Your task to perform on an android device: turn notification dots off Image 0: 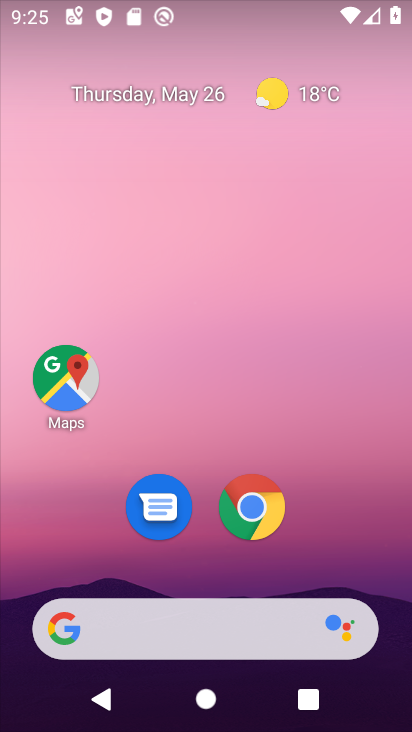
Step 0: drag from (266, 659) to (232, 195)
Your task to perform on an android device: turn notification dots off Image 1: 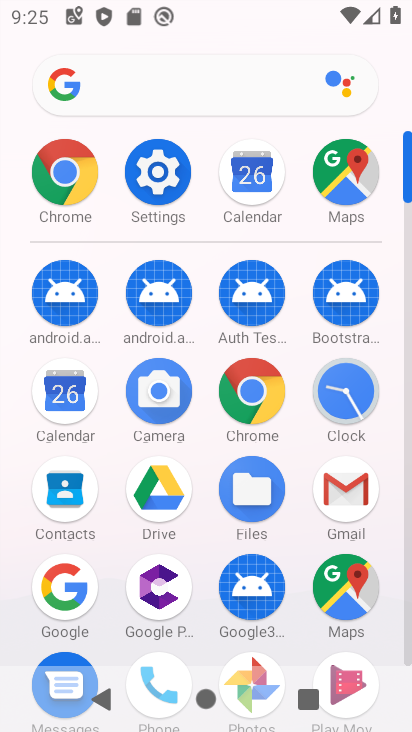
Step 1: click (146, 151)
Your task to perform on an android device: turn notification dots off Image 2: 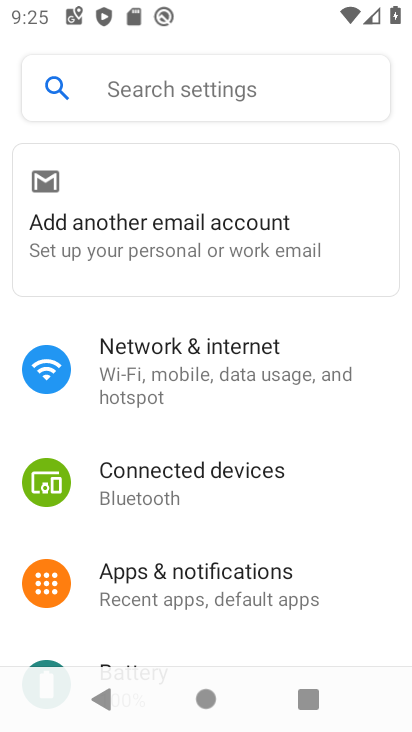
Step 2: click (164, 95)
Your task to perform on an android device: turn notification dots off Image 3: 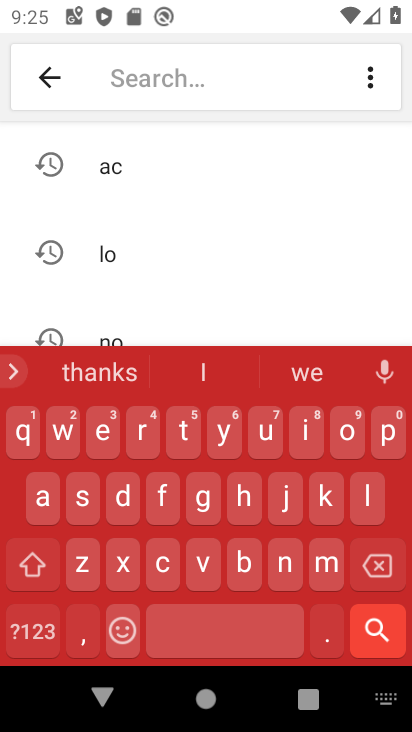
Step 3: click (121, 501)
Your task to perform on an android device: turn notification dots off Image 4: 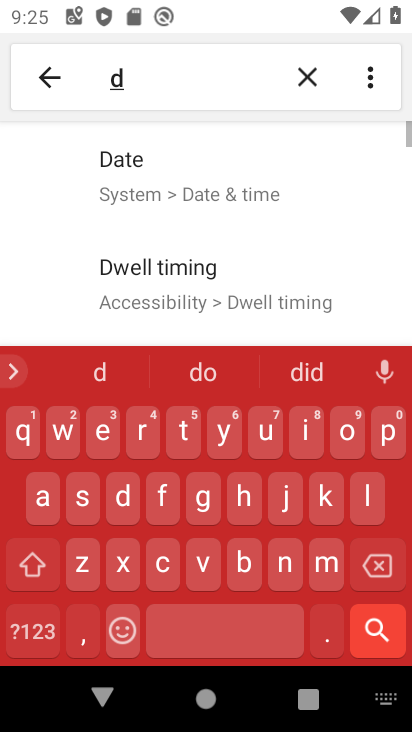
Step 4: click (343, 434)
Your task to perform on an android device: turn notification dots off Image 5: 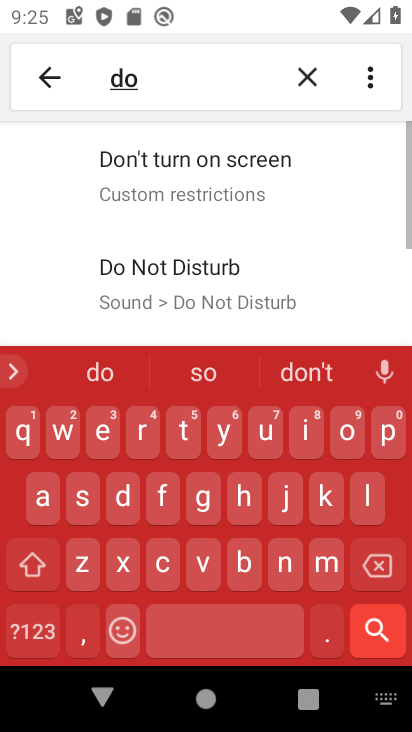
Step 5: click (184, 433)
Your task to perform on an android device: turn notification dots off Image 6: 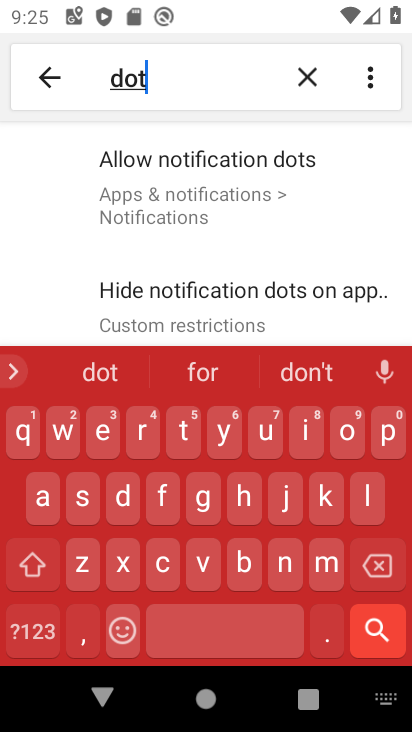
Step 6: click (164, 194)
Your task to perform on an android device: turn notification dots off Image 7: 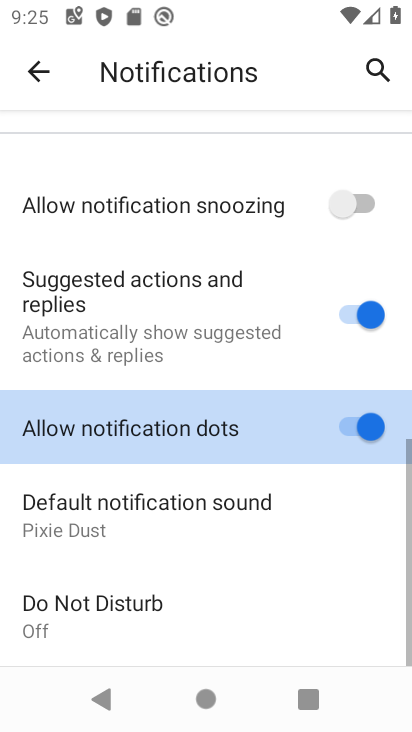
Step 7: click (353, 433)
Your task to perform on an android device: turn notification dots off Image 8: 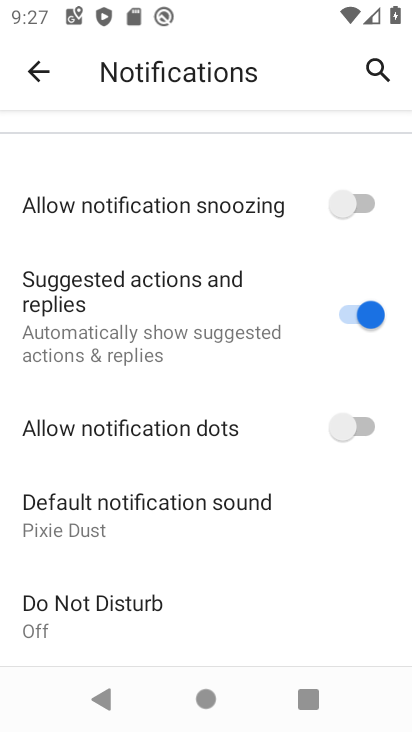
Step 8: task complete